Your task to perform on an android device: Open Chrome and go to settings Image 0: 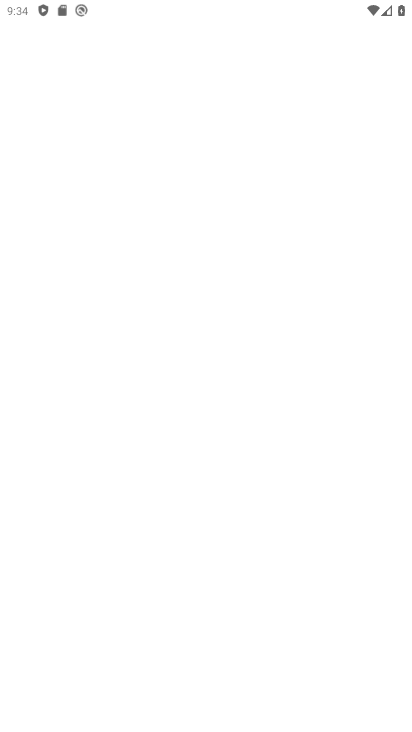
Step 0: press home button
Your task to perform on an android device: Open Chrome and go to settings Image 1: 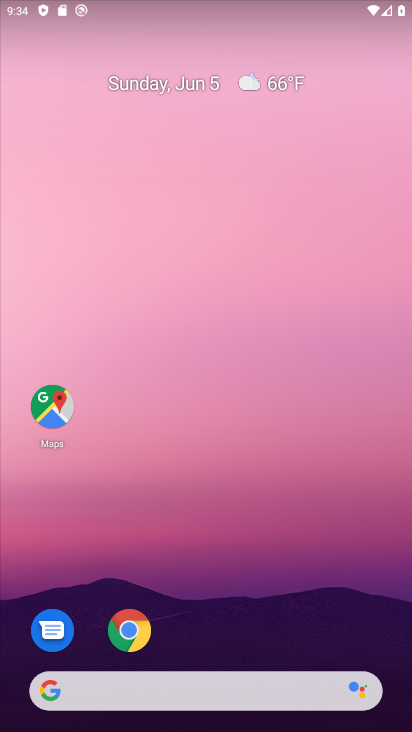
Step 1: click (128, 629)
Your task to perform on an android device: Open Chrome and go to settings Image 2: 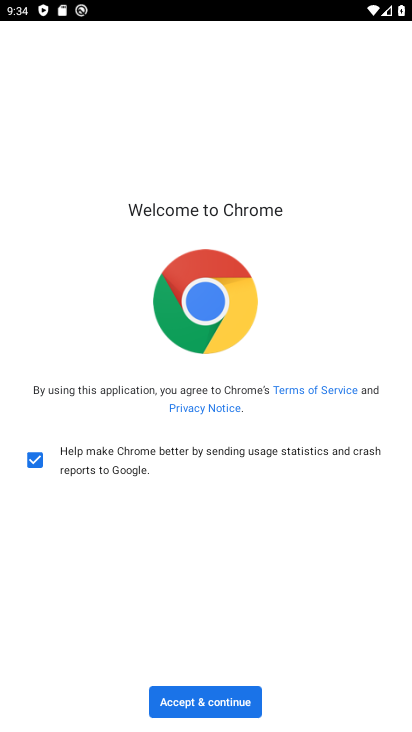
Step 2: click (204, 699)
Your task to perform on an android device: Open Chrome and go to settings Image 3: 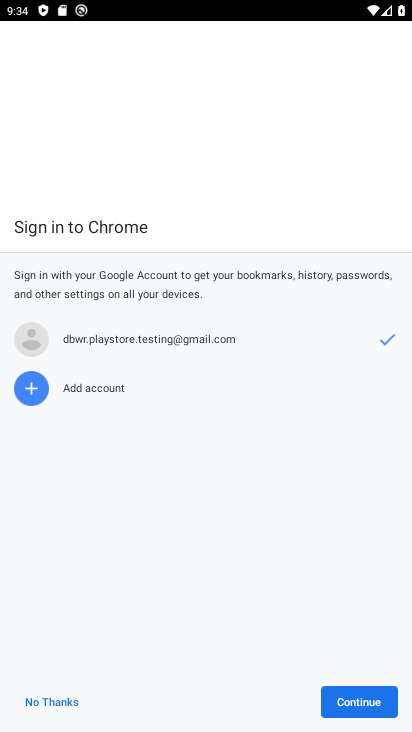
Step 3: click (378, 697)
Your task to perform on an android device: Open Chrome and go to settings Image 4: 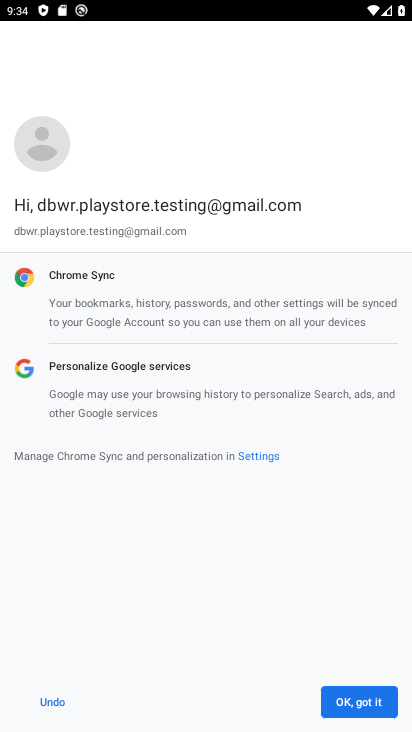
Step 4: click (378, 697)
Your task to perform on an android device: Open Chrome and go to settings Image 5: 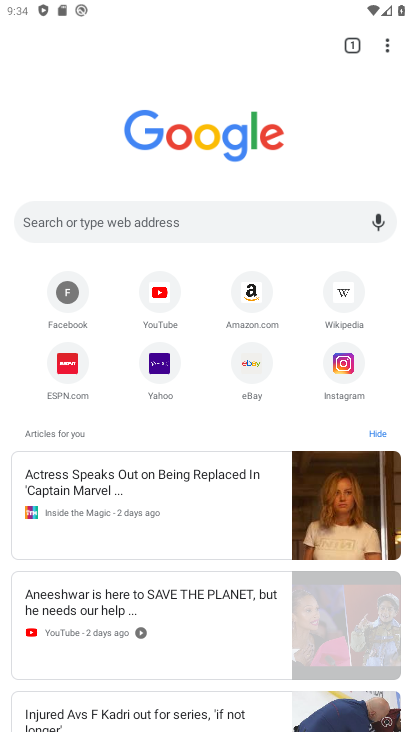
Step 5: click (389, 50)
Your task to perform on an android device: Open Chrome and go to settings Image 6: 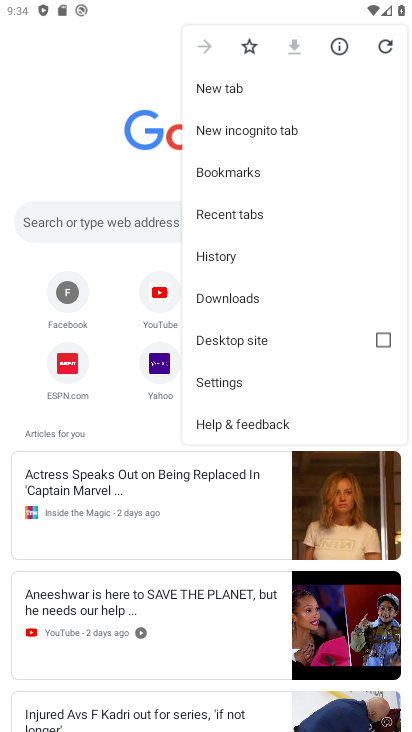
Step 6: click (220, 381)
Your task to perform on an android device: Open Chrome and go to settings Image 7: 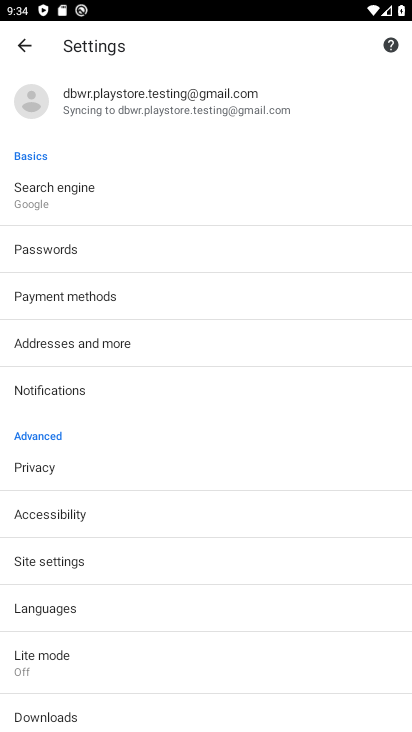
Step 7: task complete